Your task to perform on an android device: What is the recent news? Image 0: 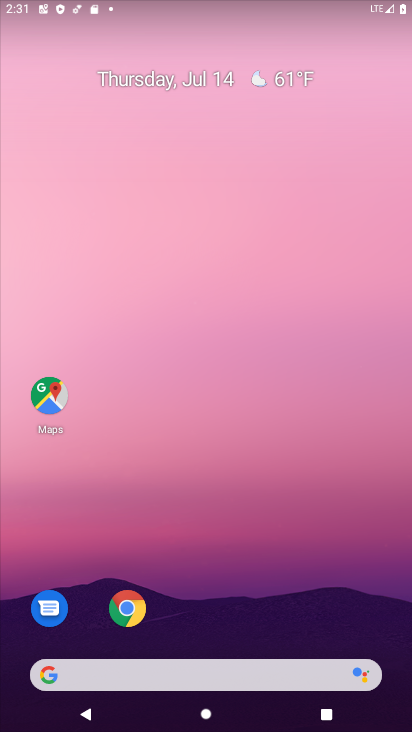
Step 0: drag from (200, 623) to (232, 387)
Your task to perform on an android device: What is the recent news? Image 1: 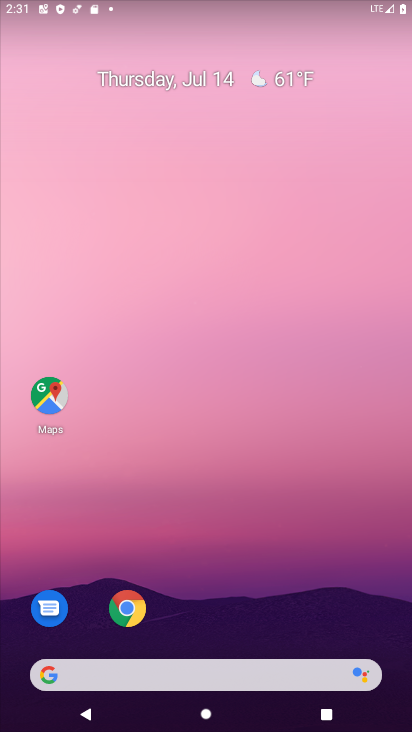
Step 1: drag from (198, 626) to (256, 229)
Your task to perform on an android device: What is the recent news? Image 2: 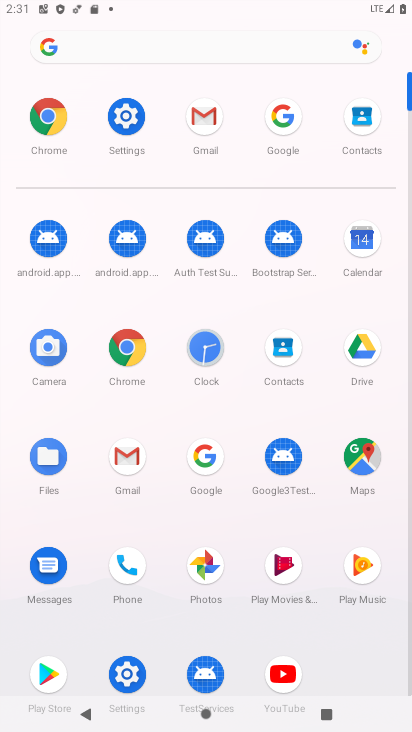
Step 2: click (208, 451)
Your task to perform on an android device: What is the recent news? Image 3: 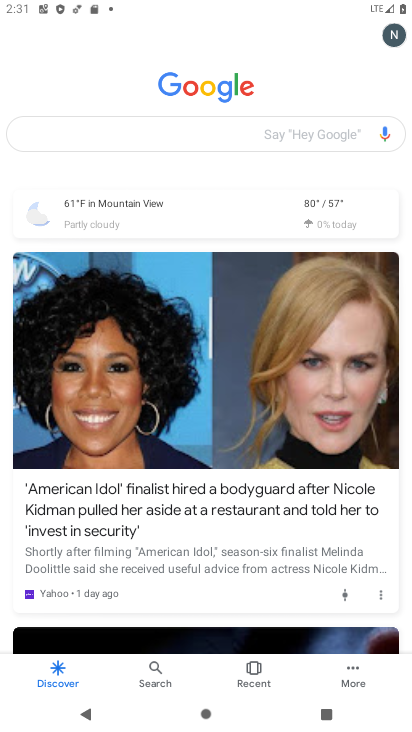
Step 3: click (154, 126)
Your task to perform on an android device: What is the recent news? Image 4: 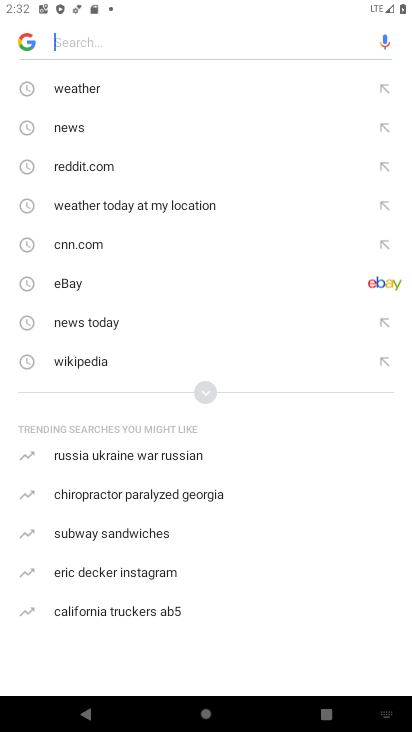
Step 4: type " recent news"
Your task to perform on an android device: What is the recent news? Image 5: 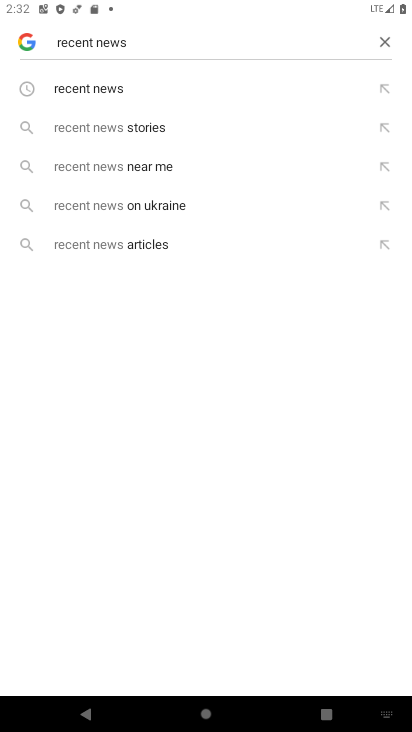
Step 5: click (121, 80)
Your task to perform on an android device: What is the recent news? Image 6: 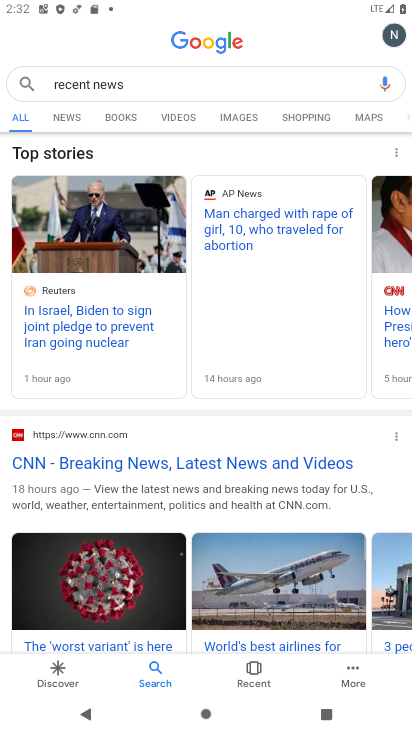
Step 6: drag from (388, 384) to (10, 432)
Your task to perform on an android device: What is the recent news? Image 7: 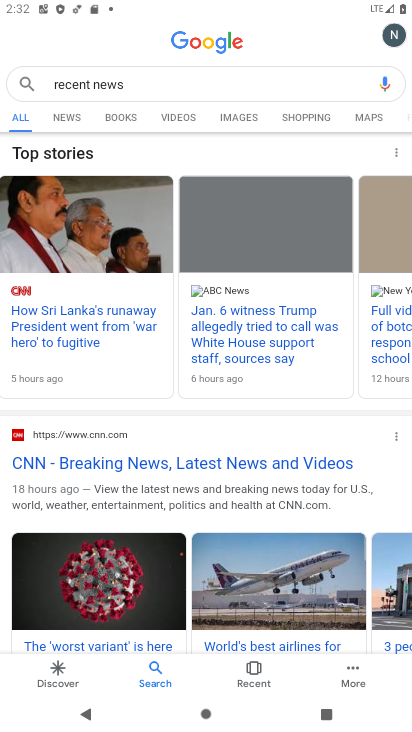
Step 7: click (142, 485)
Your task to perform on an android device: What is the recent news? Image 8: 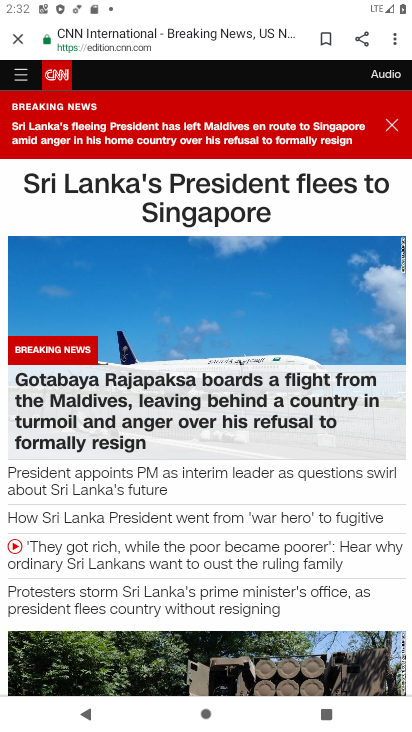
Step 8: task complete